Your task to perform on an android device: Open battery settings Image 0: 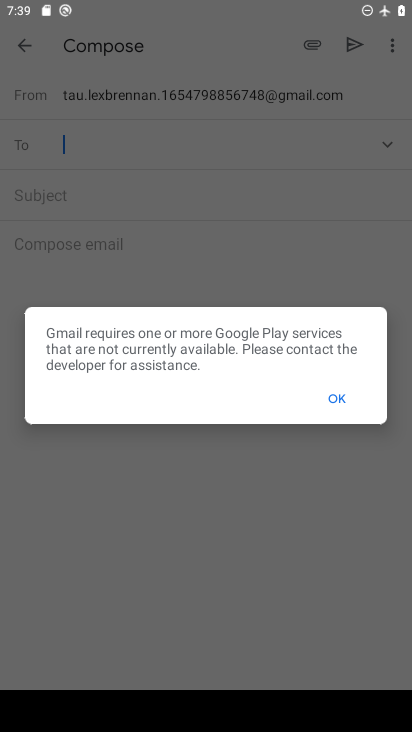
Step 0: press home button
Your task to perform on an android device: Open battery settings Image 1: 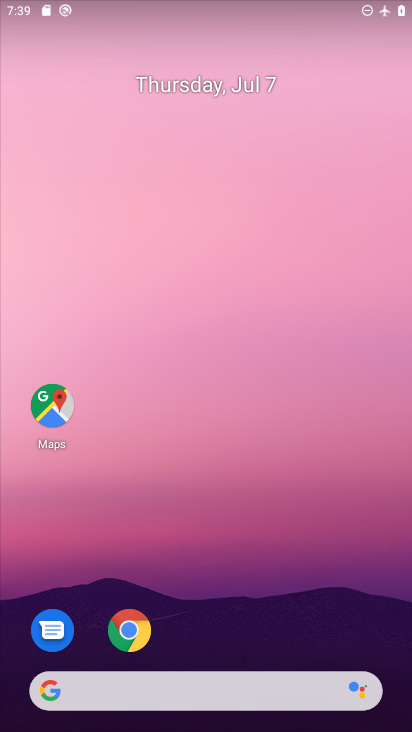
Step 1: drag from (244, 542) to (202, 103)
Your task to perform on an android device: Open battery settings Image 2: 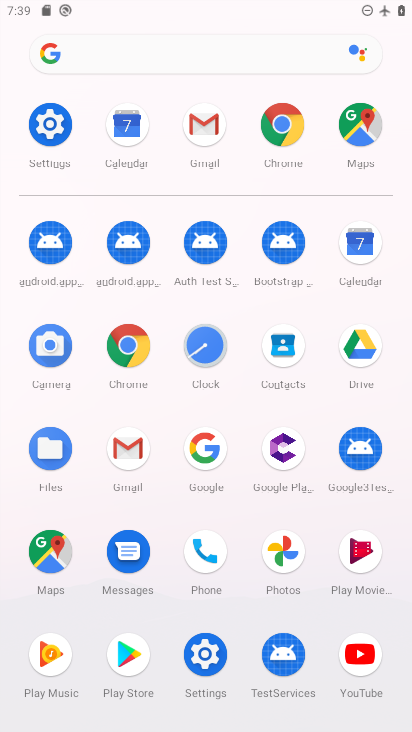
Step 2: click (48, 125)
Your task to perform on an android device: Open battery settings Image 3: 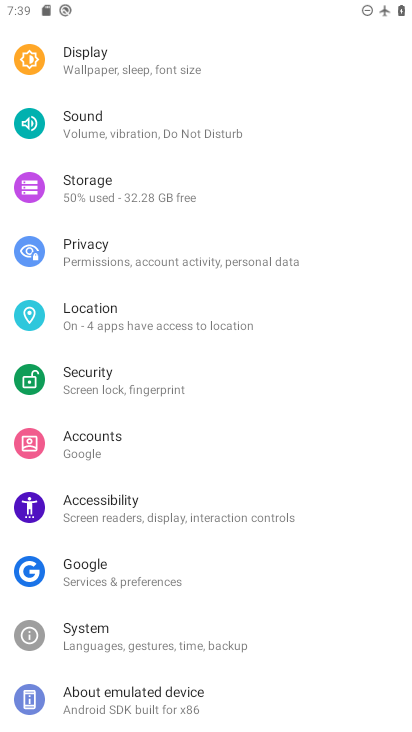
Step 3: drag from (258, 169) to (260, 658)
Your task to perform on an android device: Open battery settings Image 4: 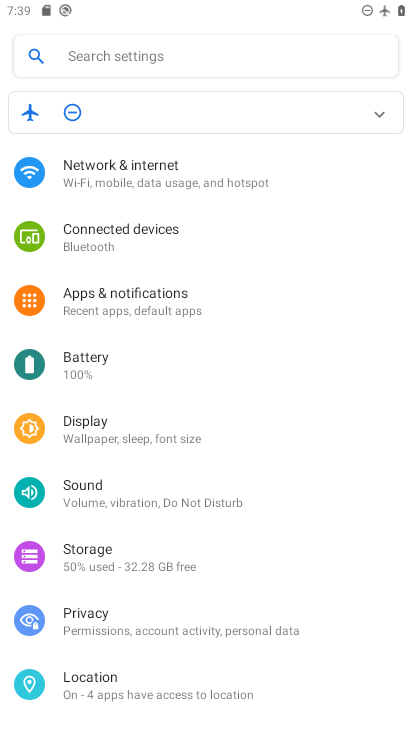
Step 4: click (89, 358)
Your task to perform on an android device: Open battery settings Image 5: 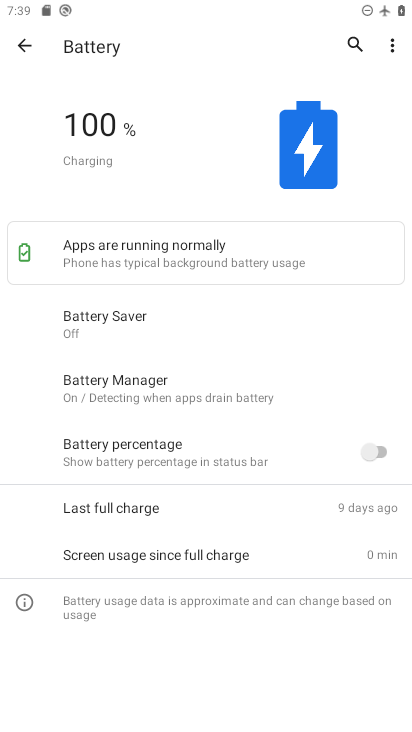
Step 5: task complete